Your task to perform on an android device: turn on data saver in the chrome app Image 0: 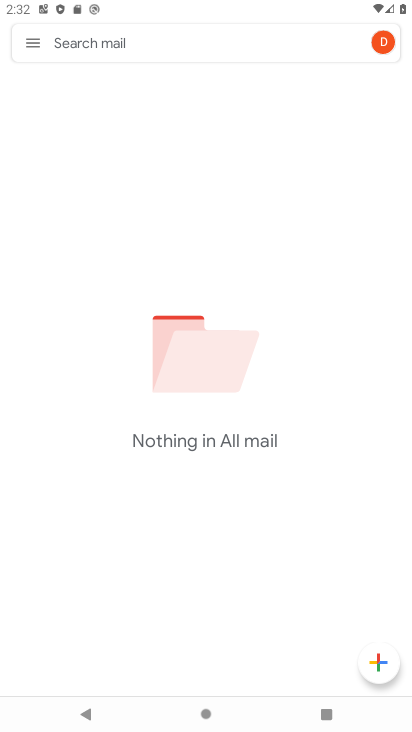
Step 0: press home button
Your task to perform on an android device: turn on data saver in the chrome app Image 1: 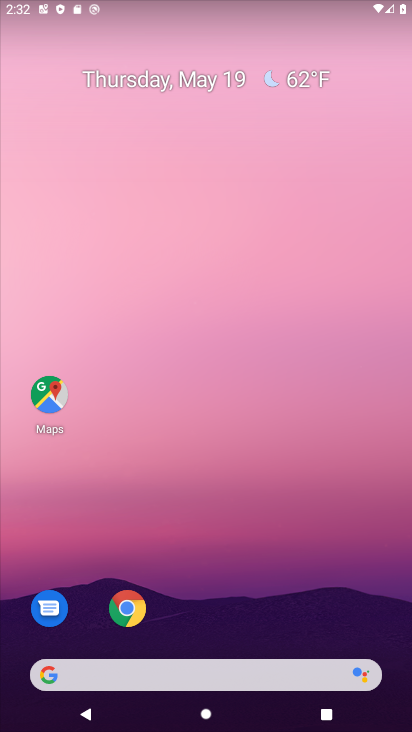
Step 1: click (115, 629)
Your task to perform on an android device: turn on data saver in the chrome app Image 2: 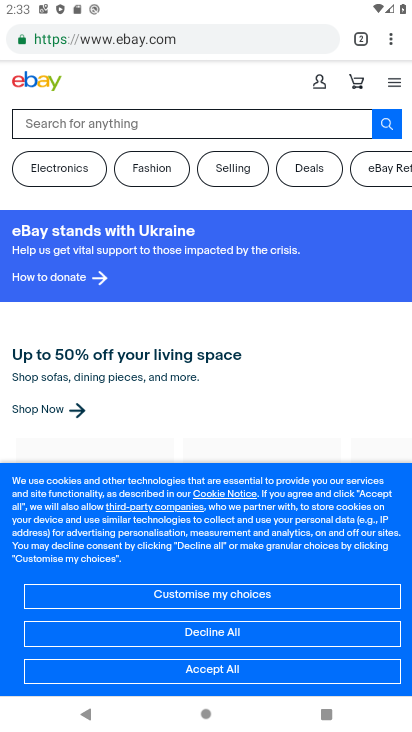
Step 2: click (384, 55)
Your task to perform on an android device: turn on data saver in the chrome app Image 3: 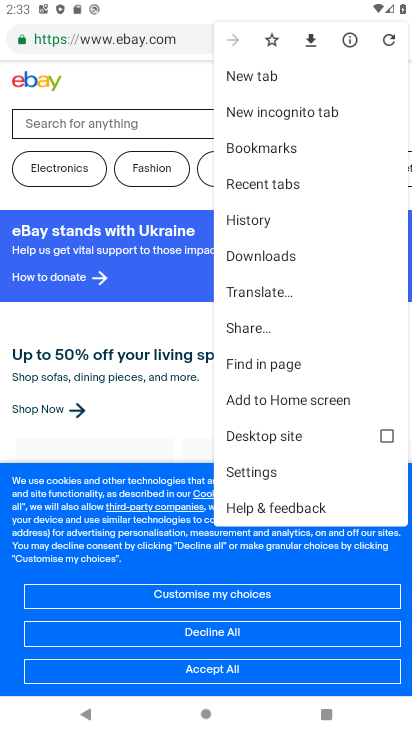
Step 3: click (284, 474)
Your task to perform on an android device: turn on data saver in the chrome app Image 4: 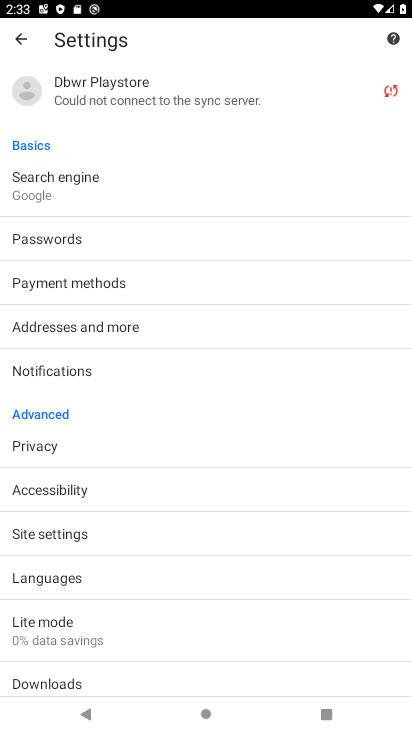
Step 4: click (135, 542)
Your task to perform on an android device: turn on data saver in the chrome app Image 5: 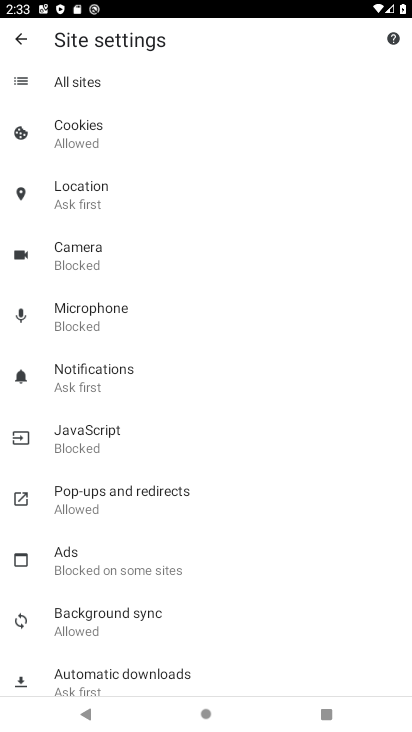
Step 5: click (6, 30)
Your task to perform on an android device: turn on data saver in the chrome app Image 6: 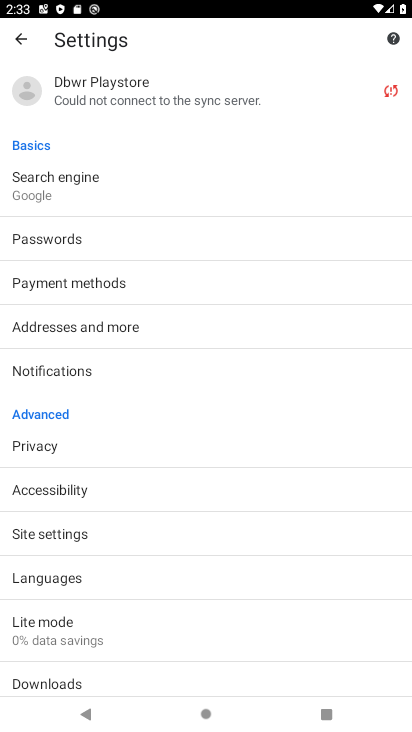
Step 6: click (172, 620)
Your task to perform on an android device: turn on data saver in the chrome app Image 7: 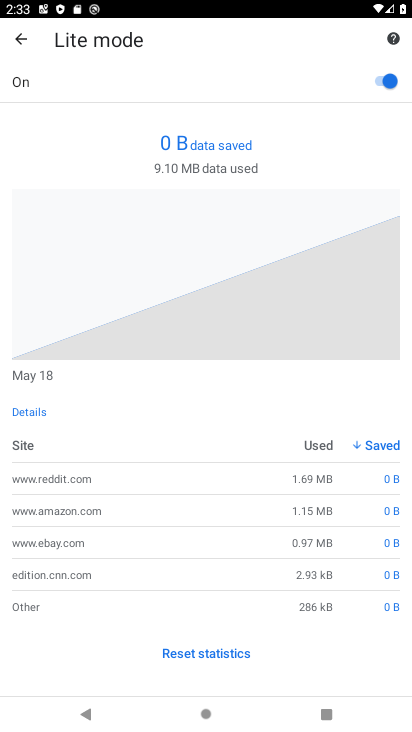
Step 7: click (388, 70)
Your task to perform on an android device: turn on data saver in the chrome app Image 8: 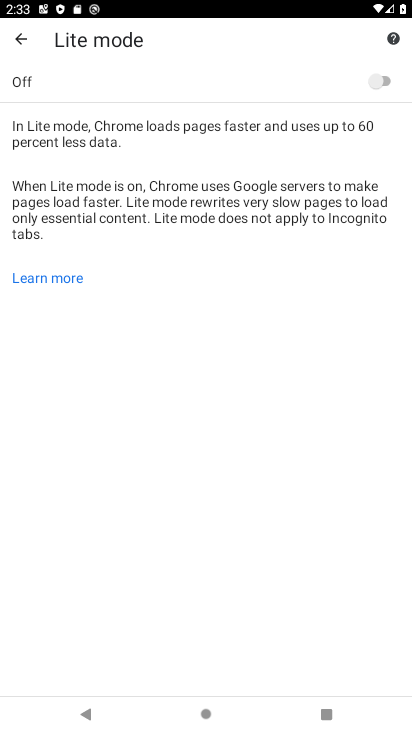
Step 8: task complete